Your task to perform on an android device: Is it going to rain this weekend? Image 0: 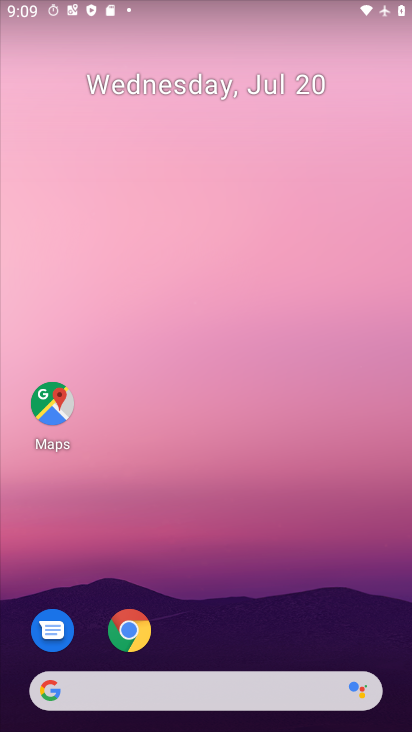
Step 0: drag from (192, 654) to (200, 241)
Your task to perform on an android device: Is it going to rain this weekend? Image 1: 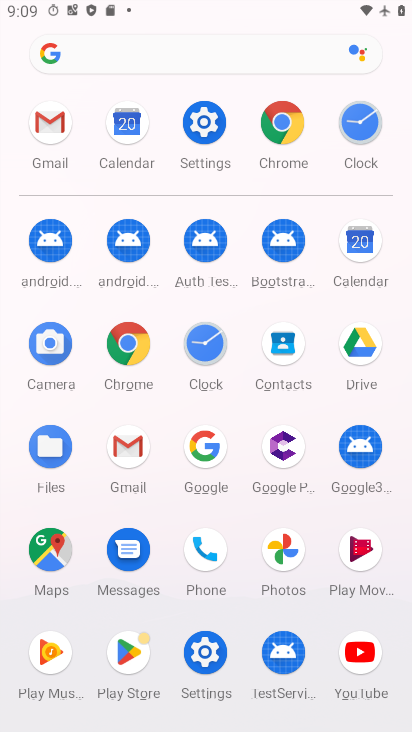
Step 1: click (211, 452)
Your task to perform on an android device: Is it going to rain this weekend? Image 2: 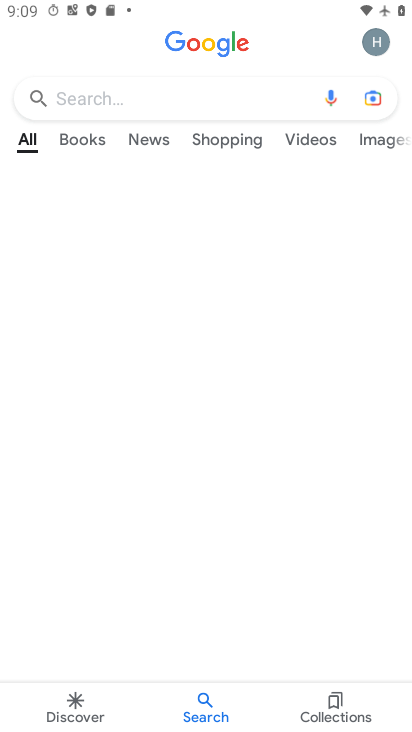
Step 2: click (260, 106)
Your task to perform on an android device: Is it going to rain this weekend? Image 3: 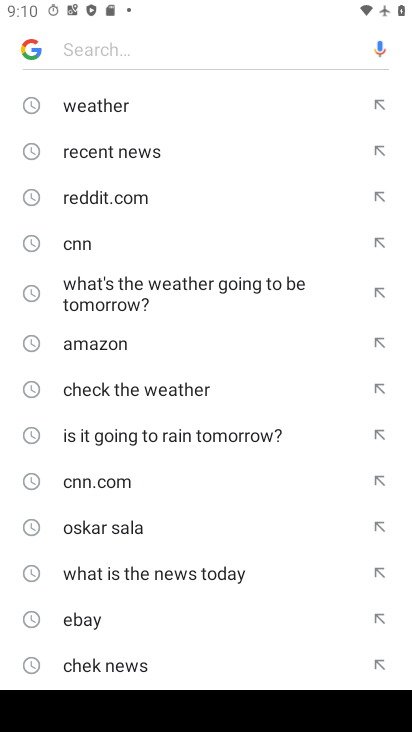
Step 3: click (106, 98)
Your task to perform on an android device: Is it going to rain this weekend? Image 4: 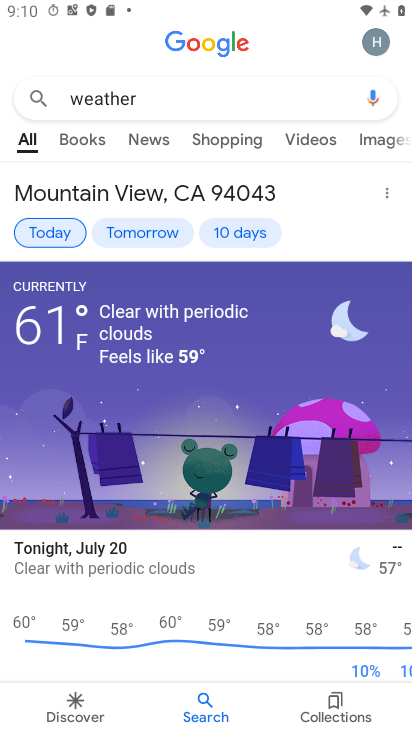
Step 4: click (247, 234)
Your task to perform on an android device: Is it going to rain this weekend? Image 5: 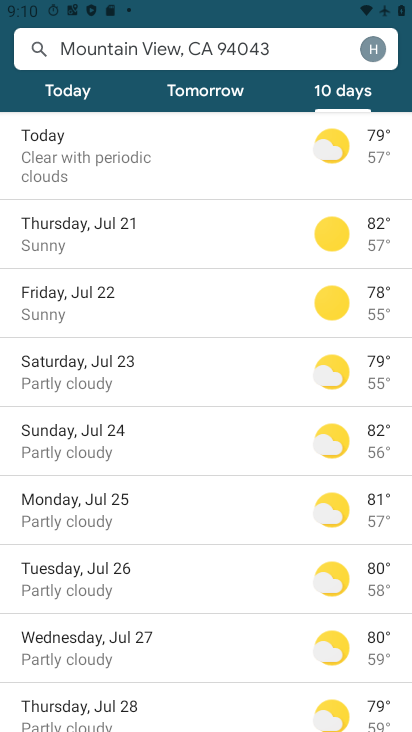
Step 5: task complete